Your task to perform on an android device: turn off smart reply in the gmail app Image 0: 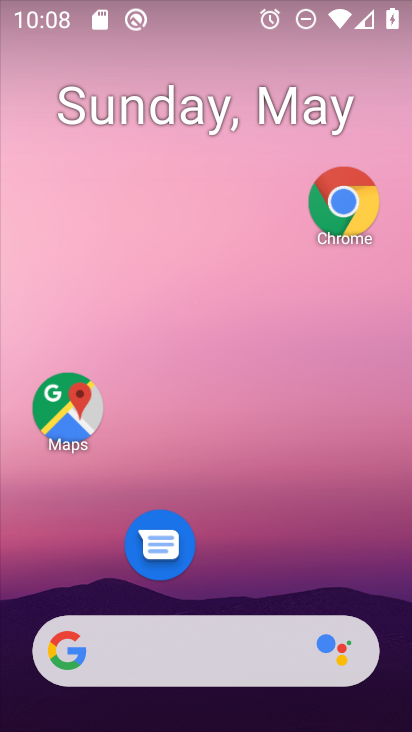
Step 0: drag from (259, 577) to (229, 40)
Your task to perform on an android device: turn off smart reply in the gmail app Image 1: 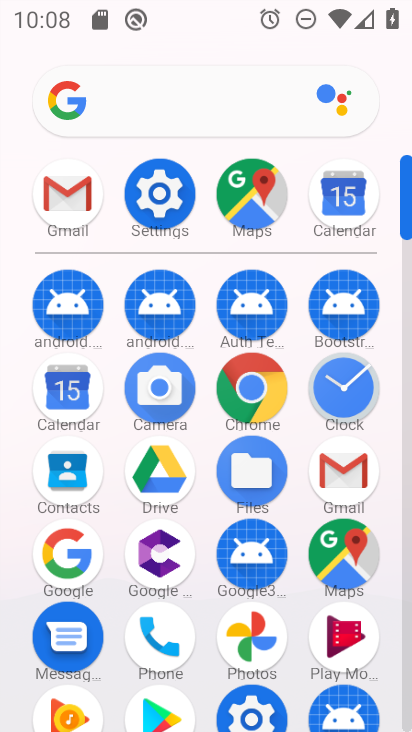
Step 1: click (339, 488)
Your task to perform on an android device: turn off smart reply in the gmail app Image 2: 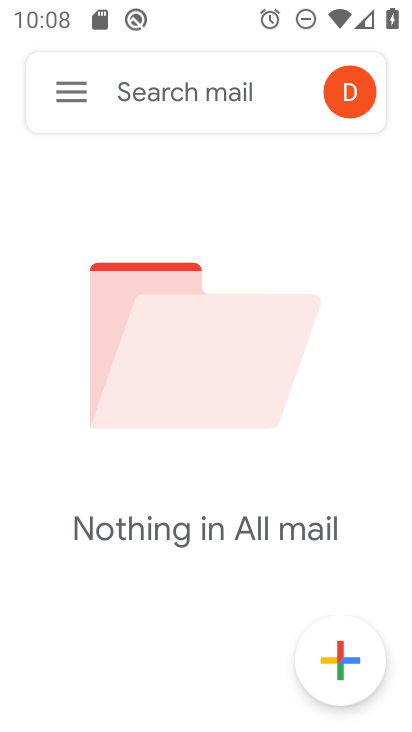
Step 2: click (62, 81)
Your task to perform on an android device: turn off smart reply in the gmail app Image 3: 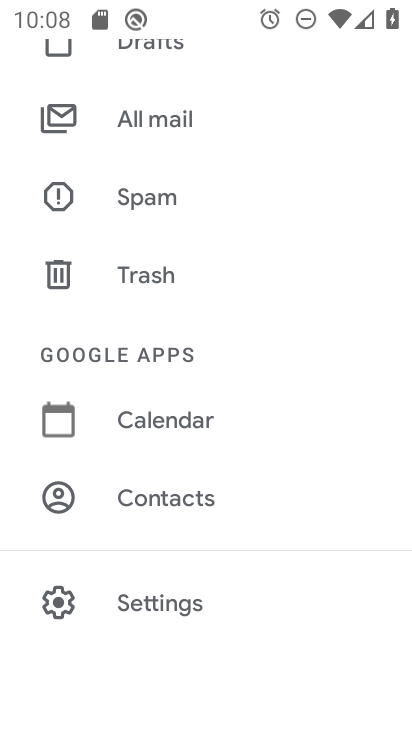
Step 3: click (137, 598)
Your task to perform on an android device: turn off smart reply in the gmail app Image 4: 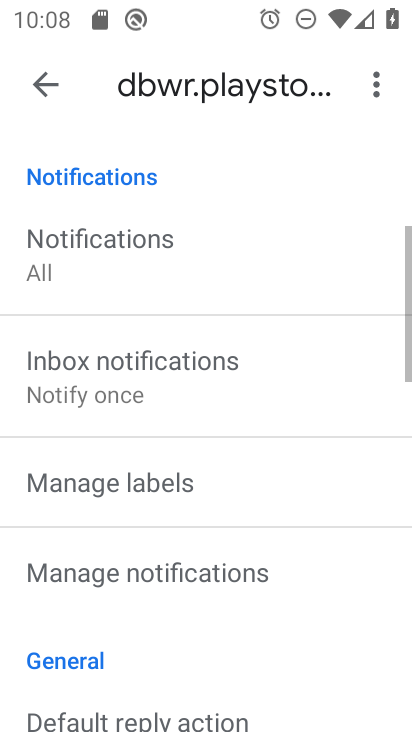
Step 4: task complete